Your task to perform on an android device: turn off wifi Image 0: 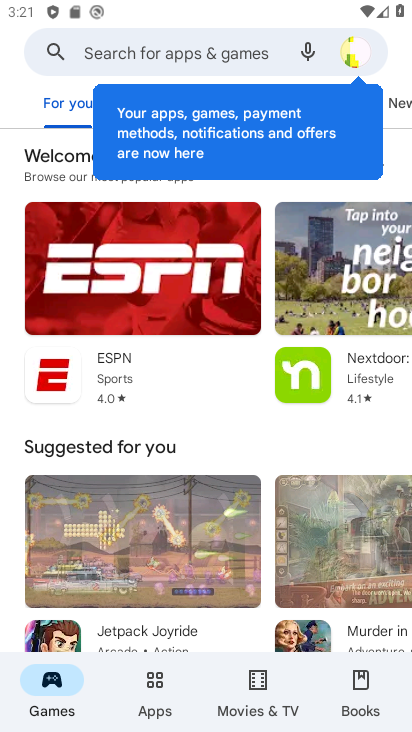
Step 0: press home button
Your task to perform on an android device: turn off wifi Image 1: 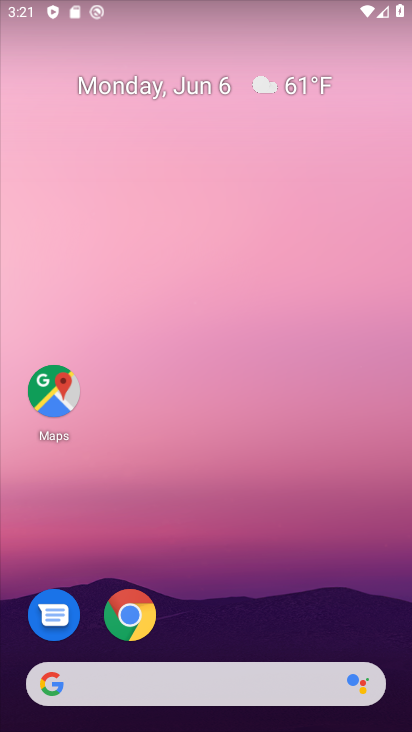
Step 1: drag from (358, 615) to (313, 138)
Your task to perform on an android device: turn off wifi Image 2: 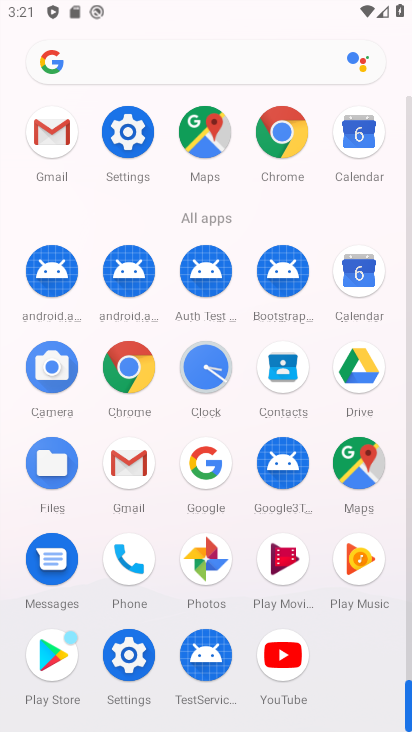
Step 2: click (126, 653)
Your task to perform on an android device: turn off wifi Image 3: 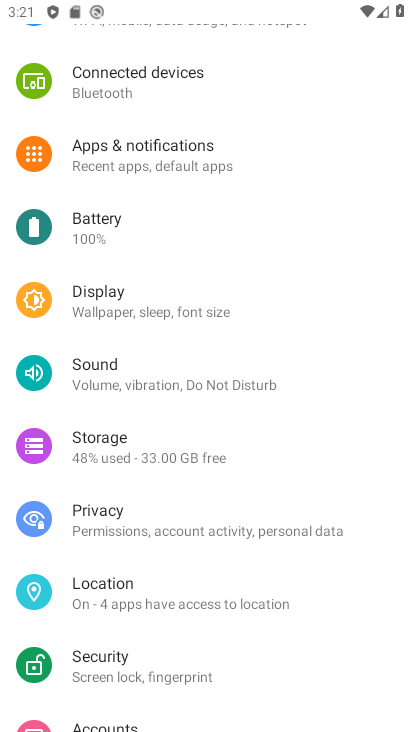
Step 3: drag from (298, 148) to (303, 376)
Your task to perform on an android device: turn off wifi Image 4: 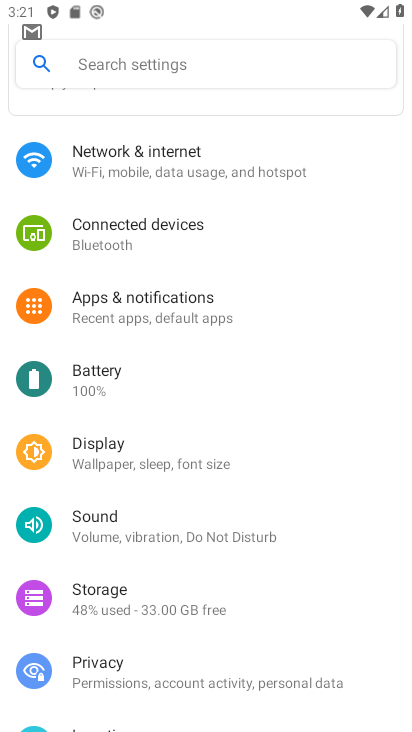
Step 4: click (79, 153)
Your task to perform on an android device: turn off wifi Image 5: 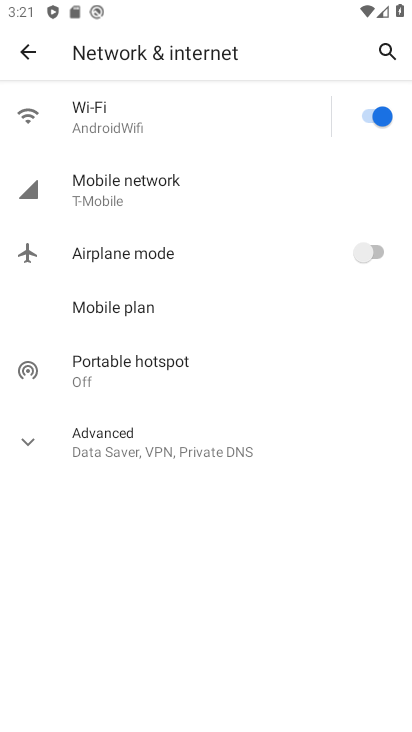
Step 5: click (362, 114)
Your task to perform on an android device: turn off wifi Image 6: 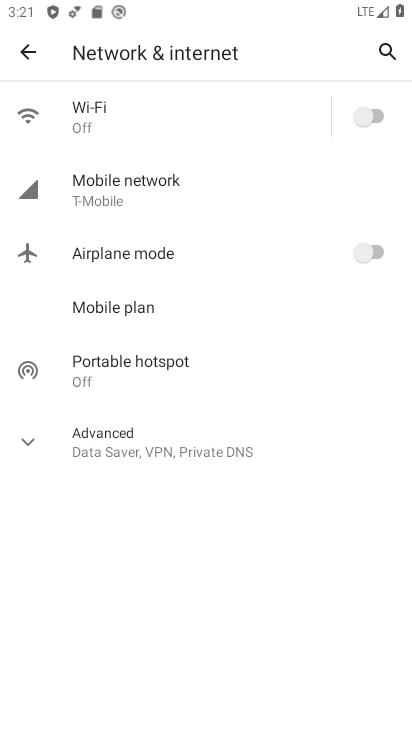
Step 6: task complete